Your task to perform on an android device: Do I have any events this weekend? Image 0: 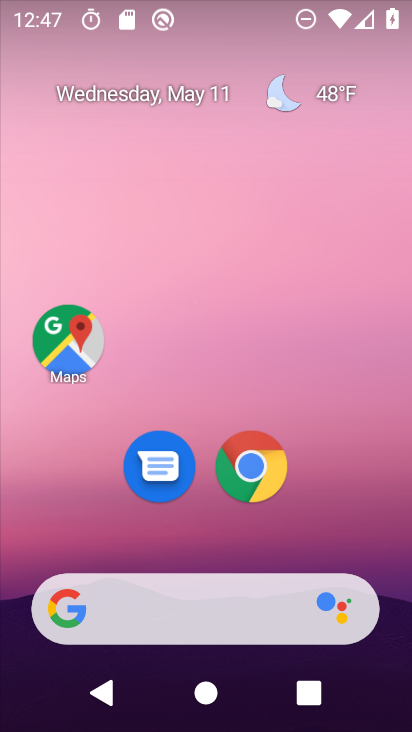
Step 0: click (73, 320)
Your task to perform on an android device: Do I have any events this weekend? Image 1: 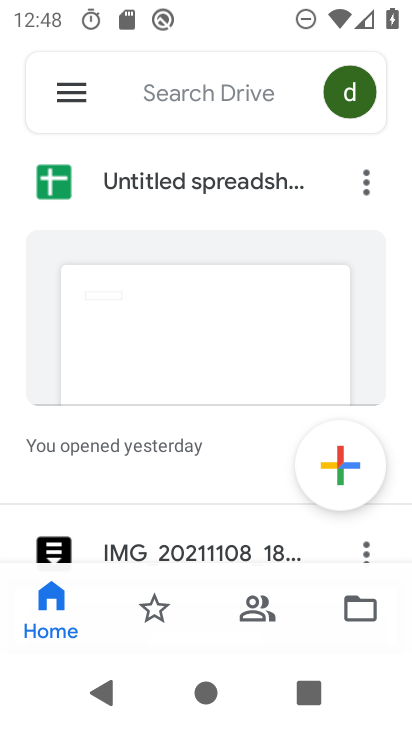
Step 1: click (71, 319)
Your task to perform on an android device: Do I have any events this weekend? Image 2: 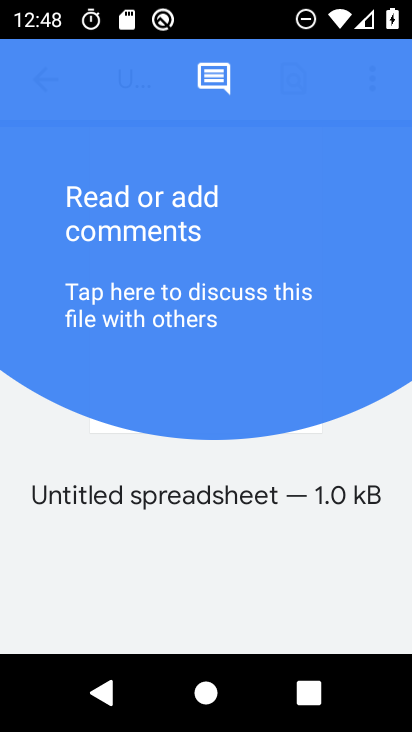
Step 2: press home button
Your task to perform on an android device: Do I have any events this weekend? Image 3: 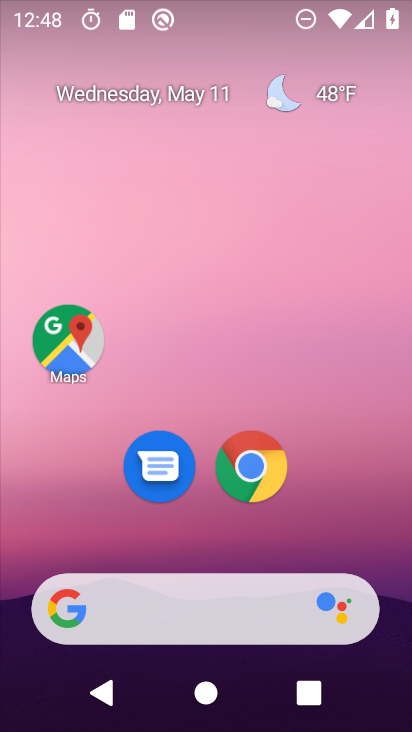
Step 3: drag from (213, 548) to (226, 104)
Your task to perform on an android device: Do I have any events this weekend? Image 4: 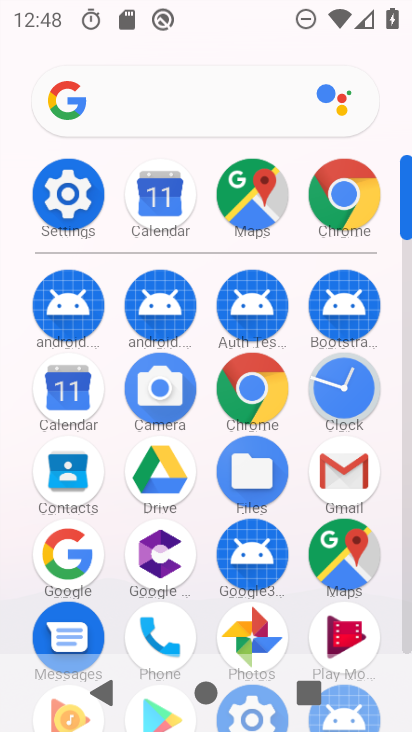
Step 4: click (65, 383)
Your task to perform on an android device: Do I have any events this weekend? Image 5: 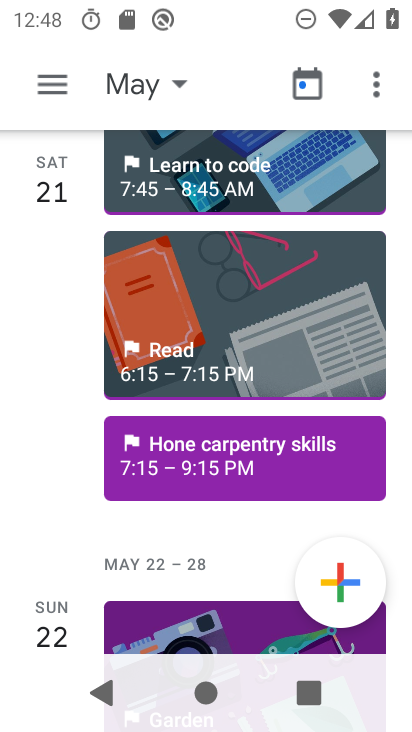
Step 5: click (53, 91)
Your task to perform on an android device: Do I have any events this weekend? Image 6: 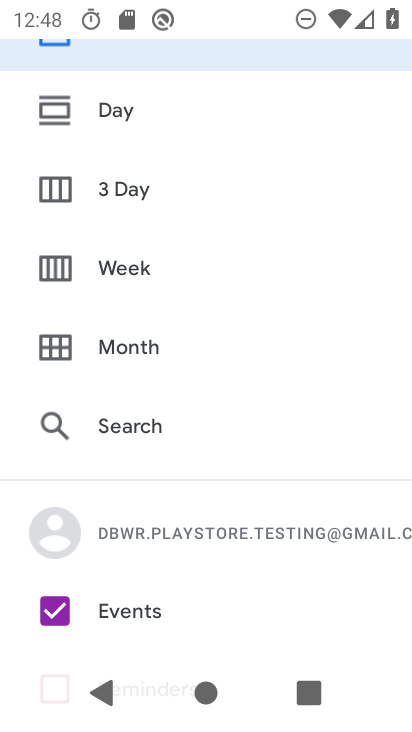
Step 6: click (86, 264)
Your task to perform on an android device: Do I have any events this weekend? Image 7: 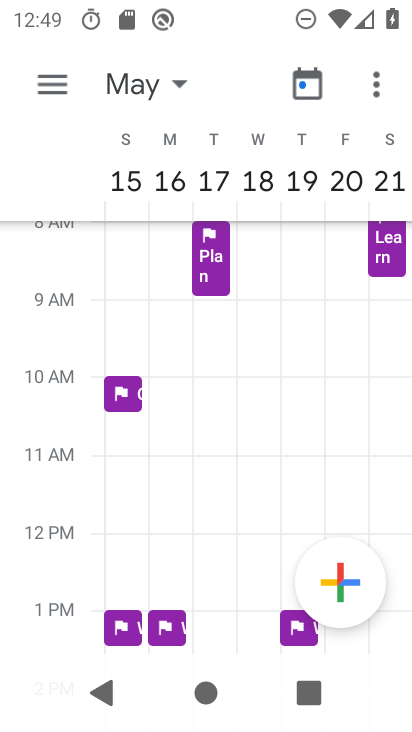
Step 7: drag from (122, 200) to (407, 229)
Your task to perform on an android device: Do I have any events this weekend? Image 8: 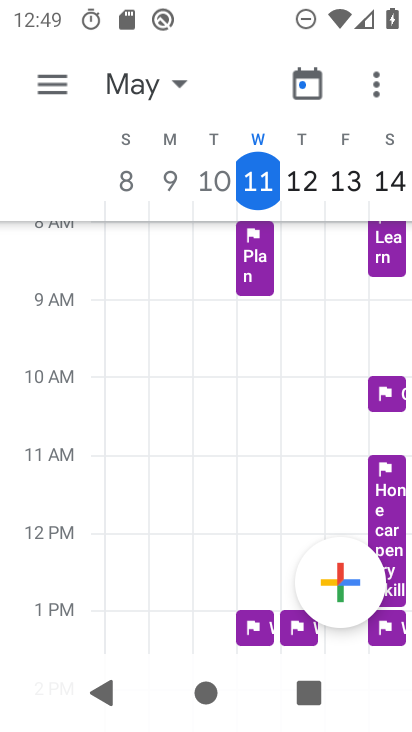
Step 8: click (254, 179)
Your task to perform on an android device: Do I have any events this weekend? Image 9: 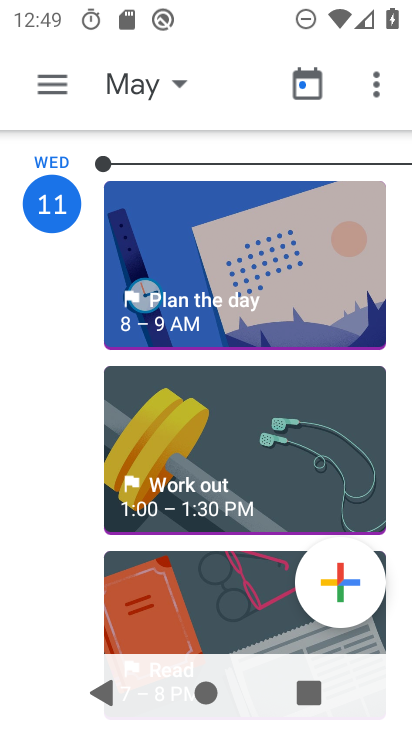
Step 9: task complete